Your task to perform on an android device: turn vacation reply on in the gmail app Image 0: 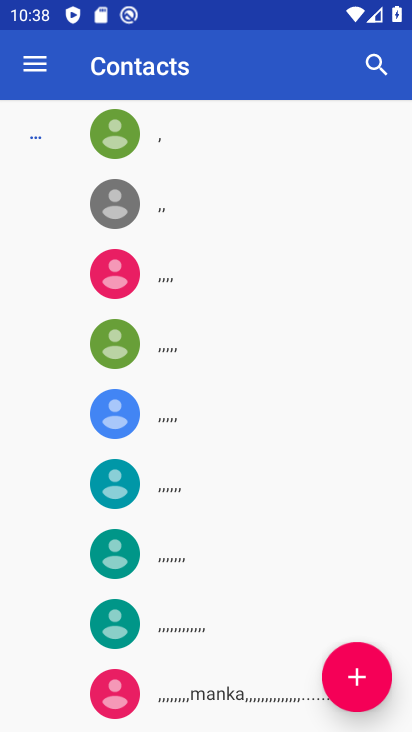
Step 0: press home button
Your task to perform on an android device: turn vacation reply on in the gmail app Image 1: 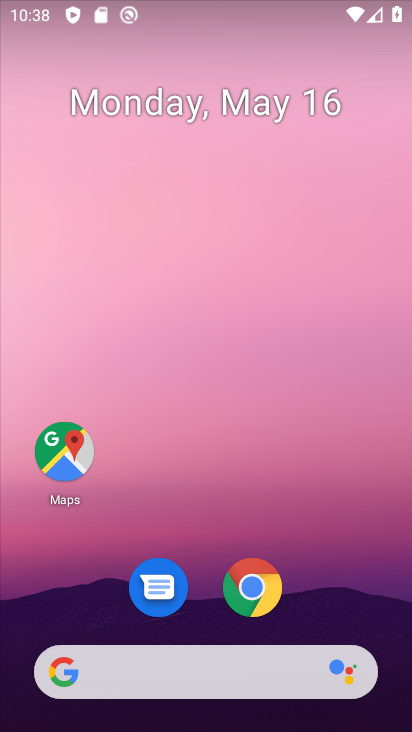
Step 1: drag from (341, 599) to (274, 87)
Your task to perform on an android device: turn vacation reply on in the gmail app Image 2: 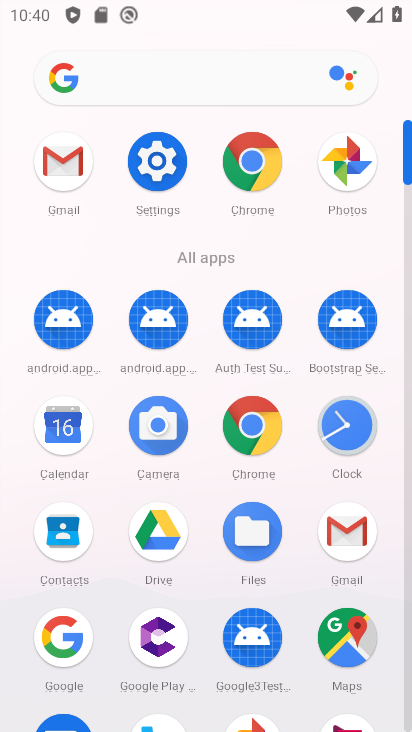
Step 2: click (31, 166)
Your task to perform on an android device: turn vacation reply on in the gmail app Image 3: 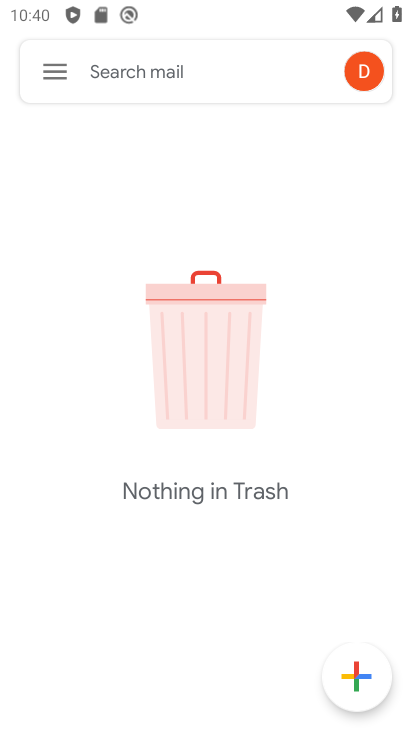
Step 3: click (64, 70)
Your task to perform on an android device: turn vacation reply on in the gmail app Image 4: 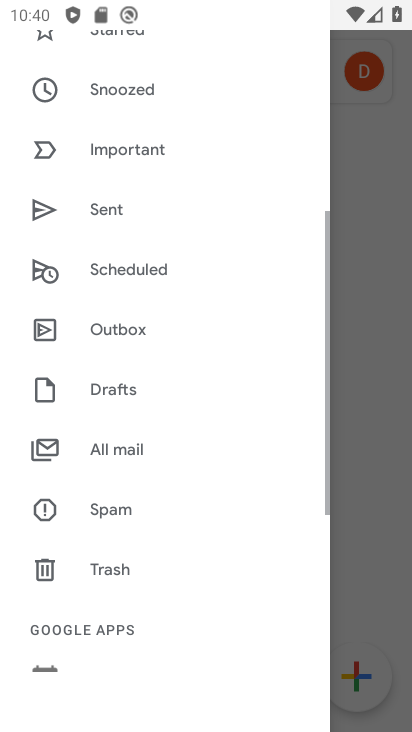
Step 4: drag from (174, 634) to (267, 125)
Your task to perform on an android device: turn vacation reply on in the gmail app Image 5: 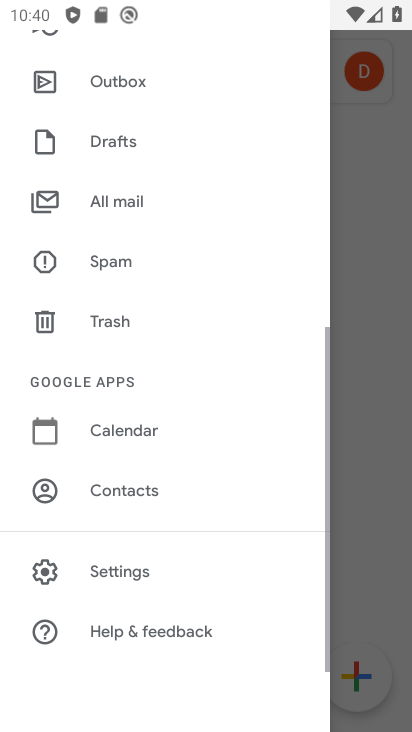
Step 5: click (170, 577)
Your task to perform on an android device: turn vacation reply on in the gmail app Image 6: 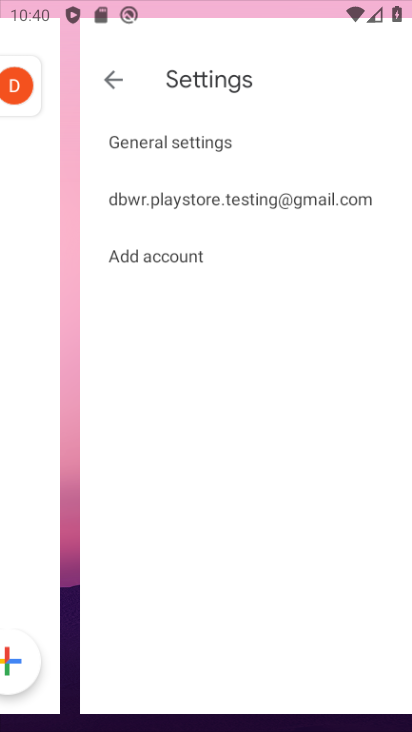
Step 6: drag from (222, 621) to (305, 167)
Your task to perform on an android device: turn vacation reply on in the gmail app Image 7: 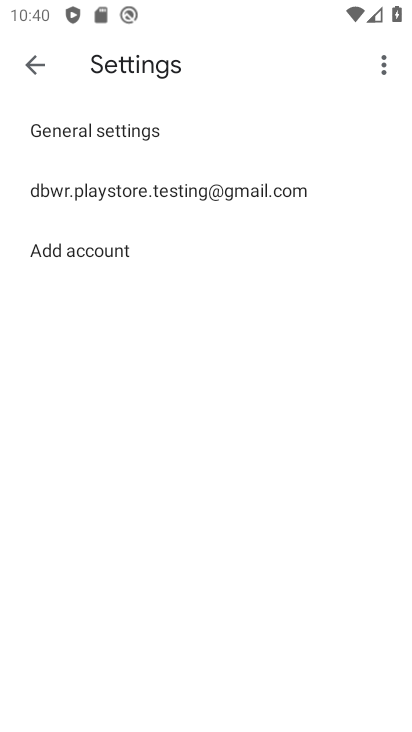
Step 7: click (215, 175)
Your task to perform on an android device: turn vacation reply on in the gmail app Image 8: 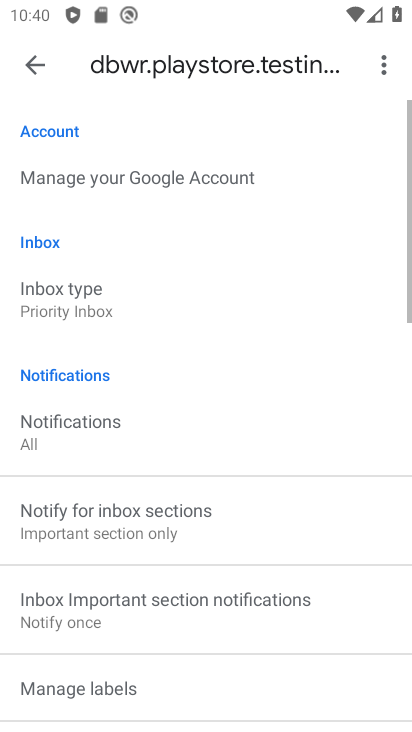
Step 8: drag from (218, 640) to (210, 43)
Your task to perform on an android device: turn vacation reply on in the gmail app Image 9: 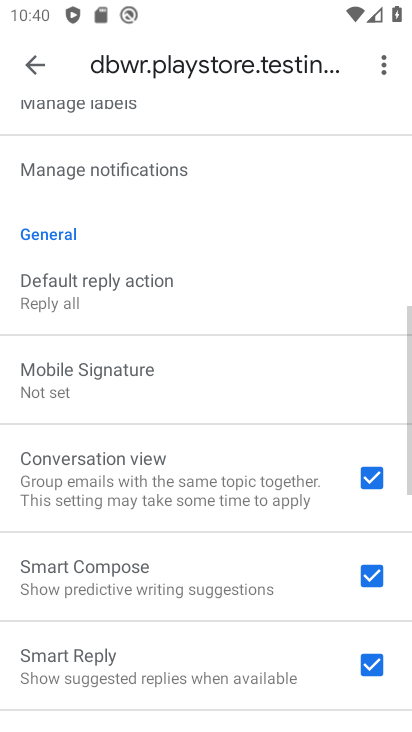
Step 9: drag from (197, 637) to (249, 121)
Your task to perform on an android device: turn vacation reply on in the gmail app Image 10: 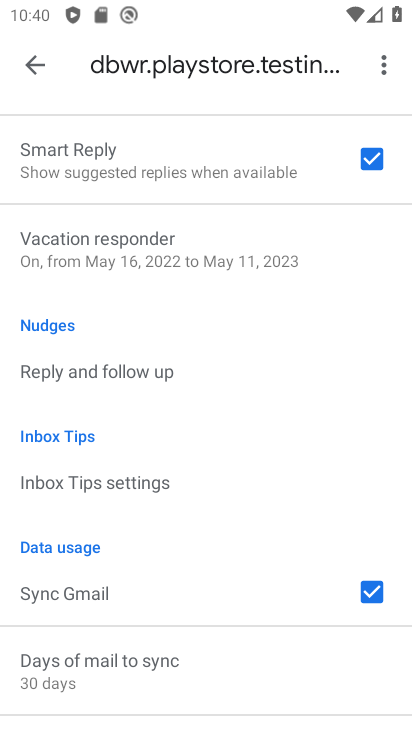
Step 10: click (142, 258)
Your task to perform on an android device: turn vacation reply on in the gmail app Image 11: 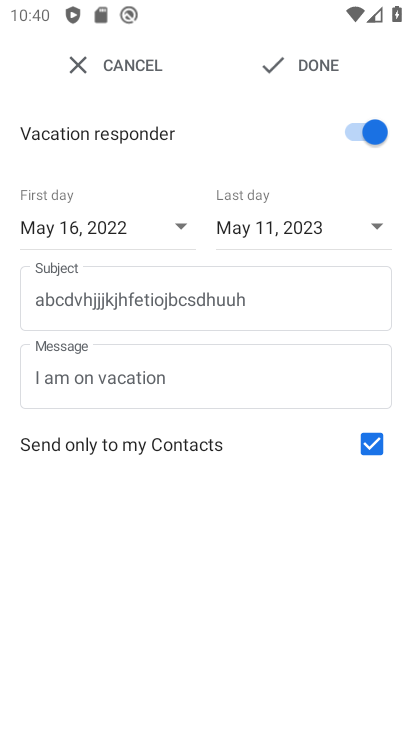
Step 11: task complete